Your task to perform on an android device: install app "Flipkart Online Shopping App" Image 0: 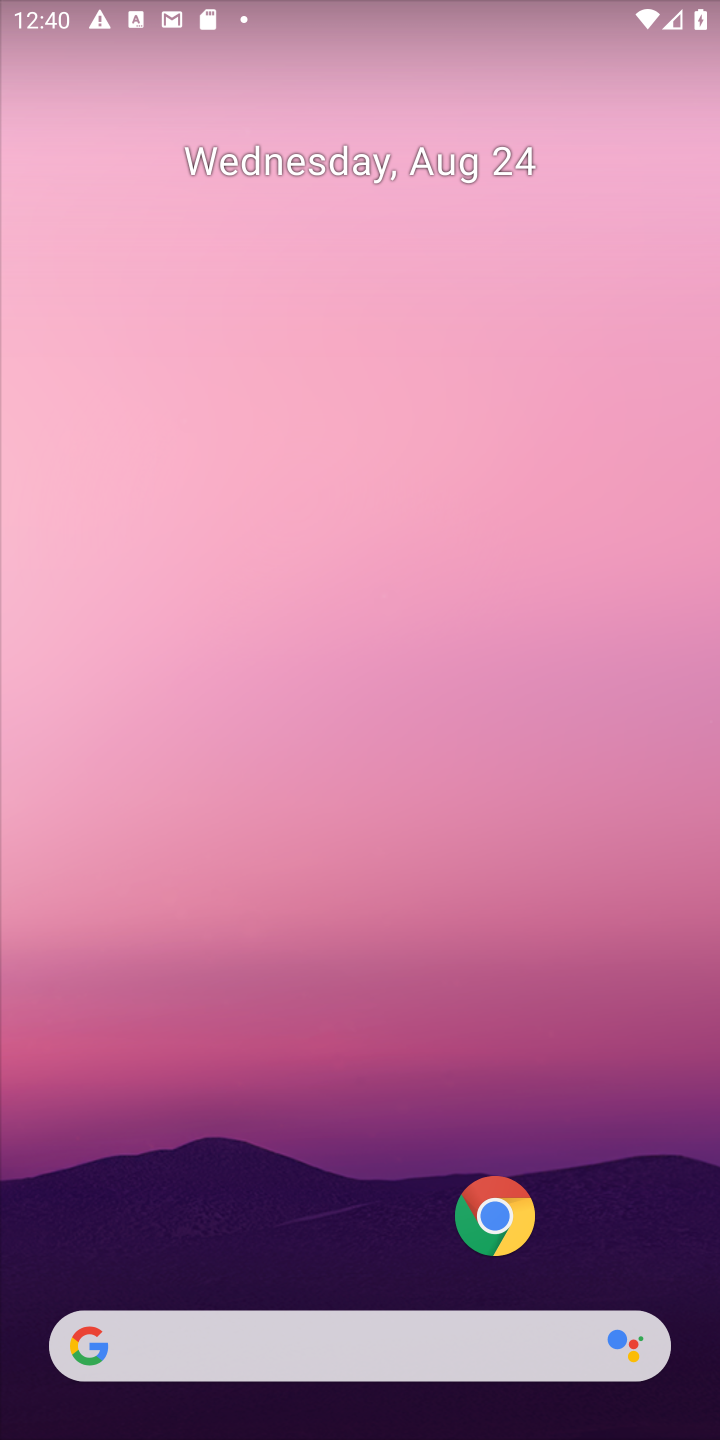
Step 0: drag from (278, 1363) to (559, 62)
Your task to perform on an android device: install app "Flipkart Online Shopping App" Image 1: 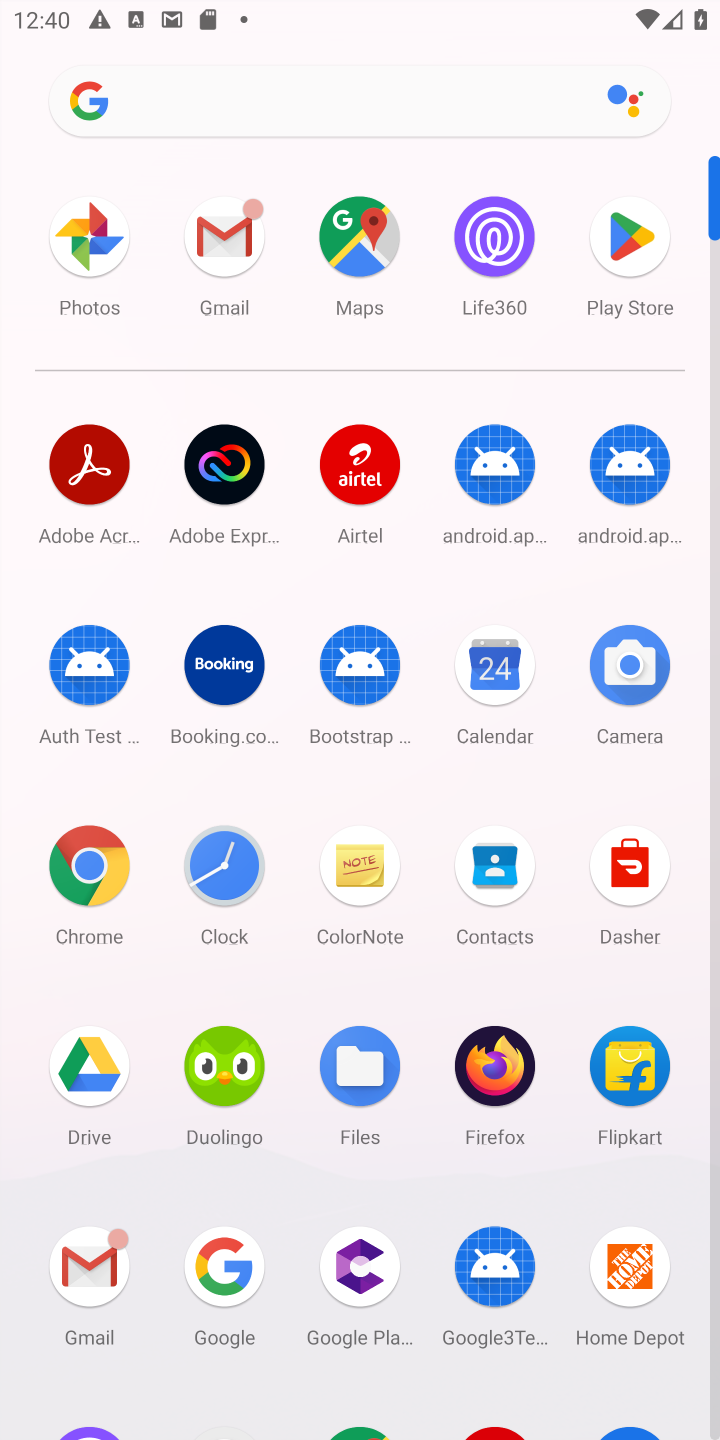
Step 1: click (625, 236)
Your task to perform on an android device: install app "Flipkart Online Shopping App" Image 2: 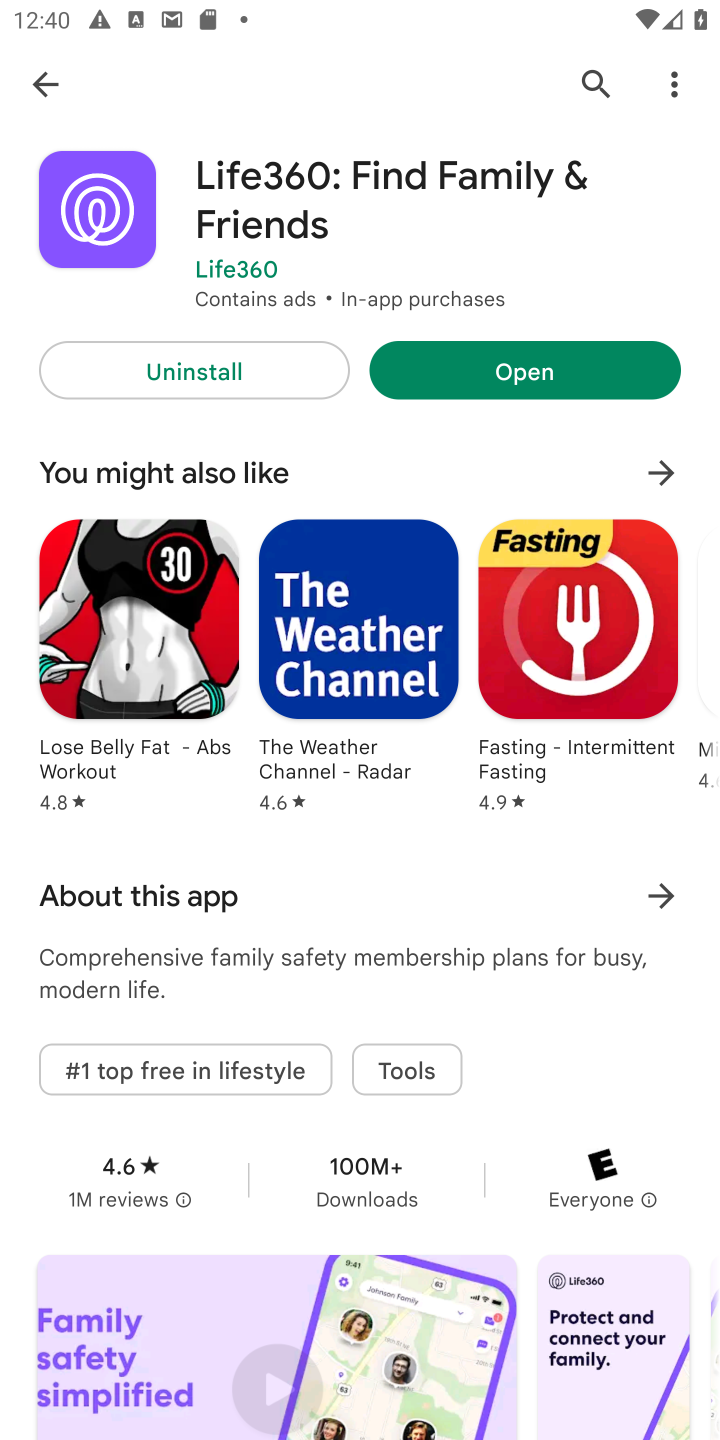
Step 2: press back button
Your task to perform on an android device: install app "Flipkart Online Shopping App" Image 3: 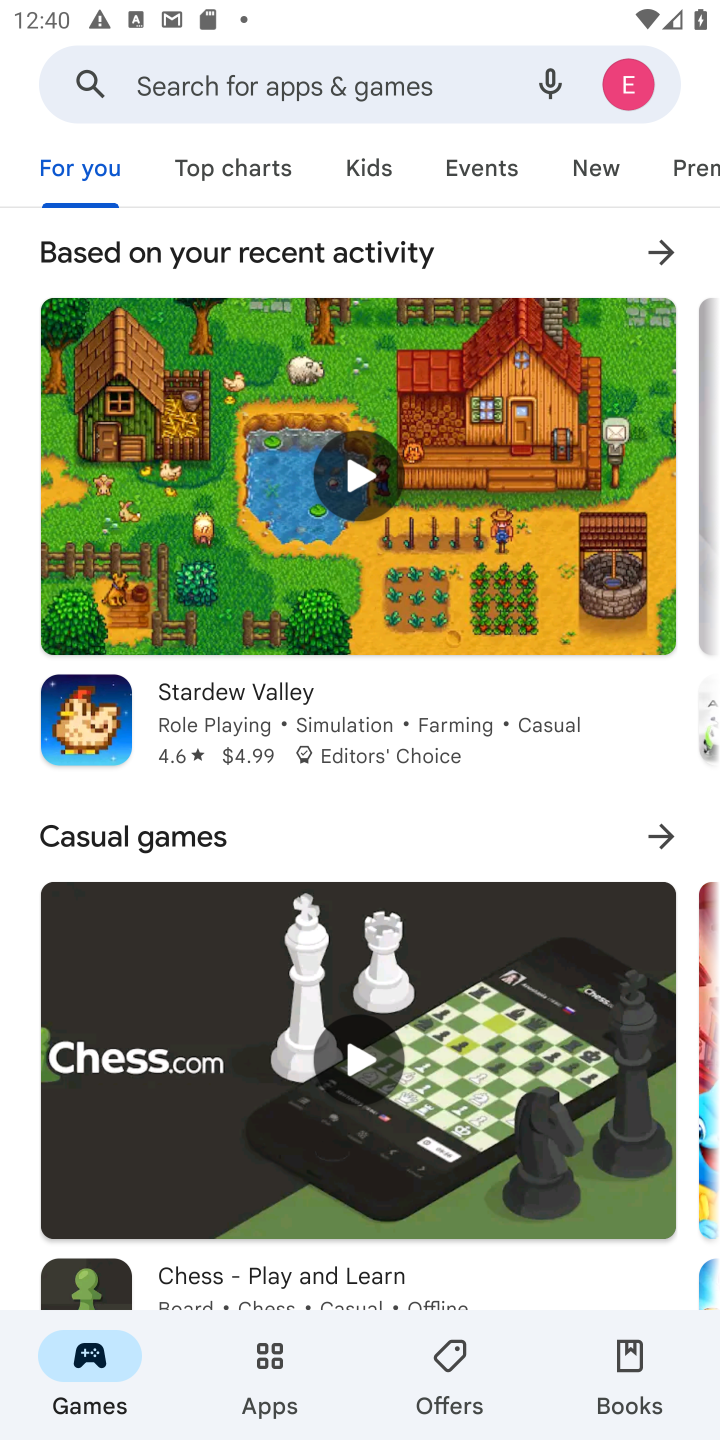
Step 3: click (401, 85)
Your task to perform on an android device: install app "Flipkart Online Shopping App" Image 4: 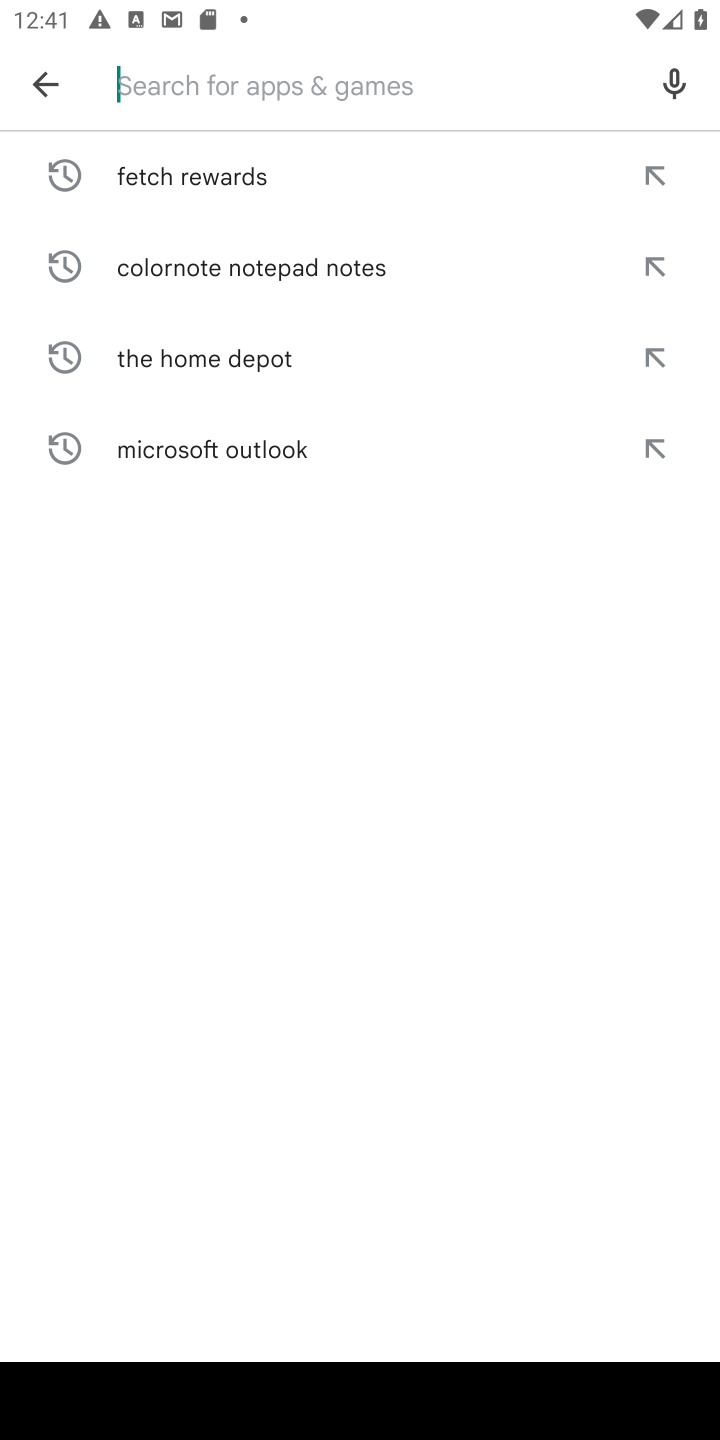
Step 4: type "Flipkart Online Shopping App"
Your task to perform on an android device: install app "Flipkart Online Shopping App" Image 5: 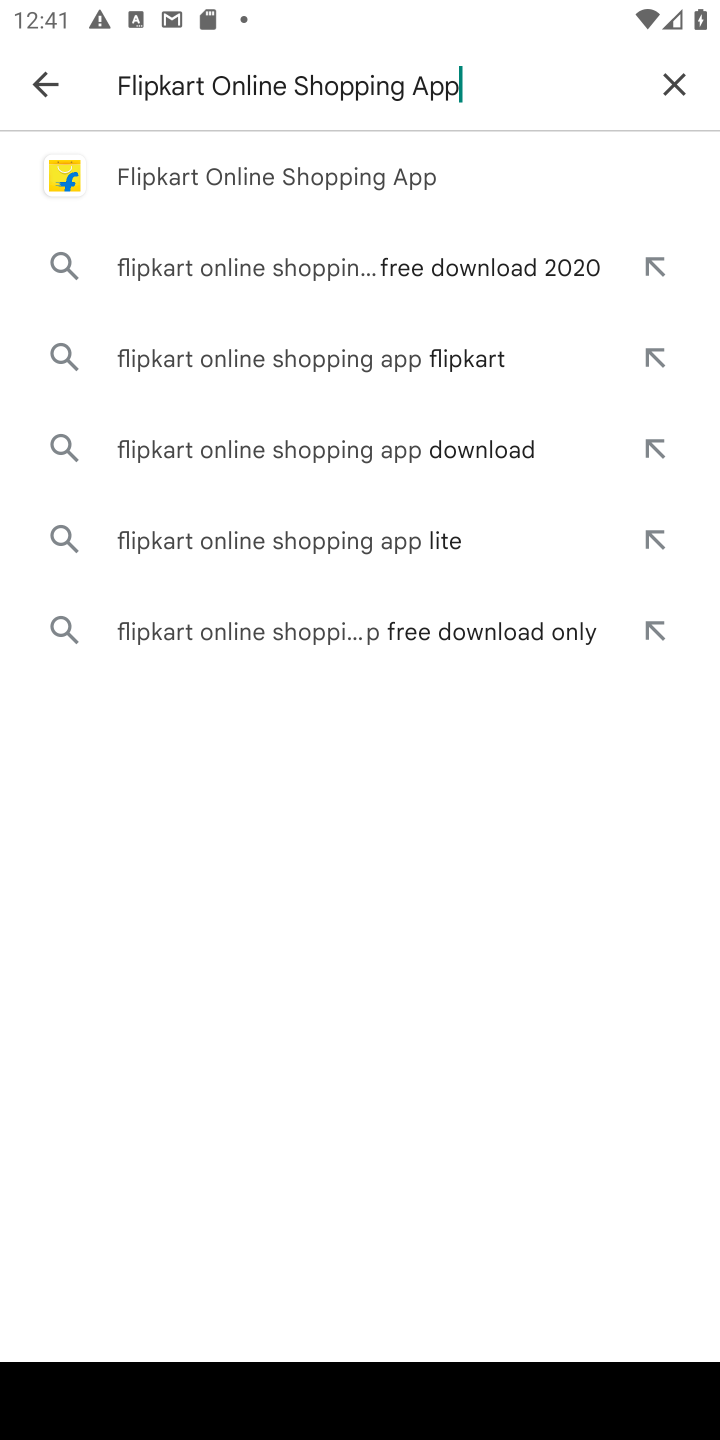
Step 5: click (218, 176)
Your task to perform on an android device: install app "Flipkart Online Shopping App" Image 6: 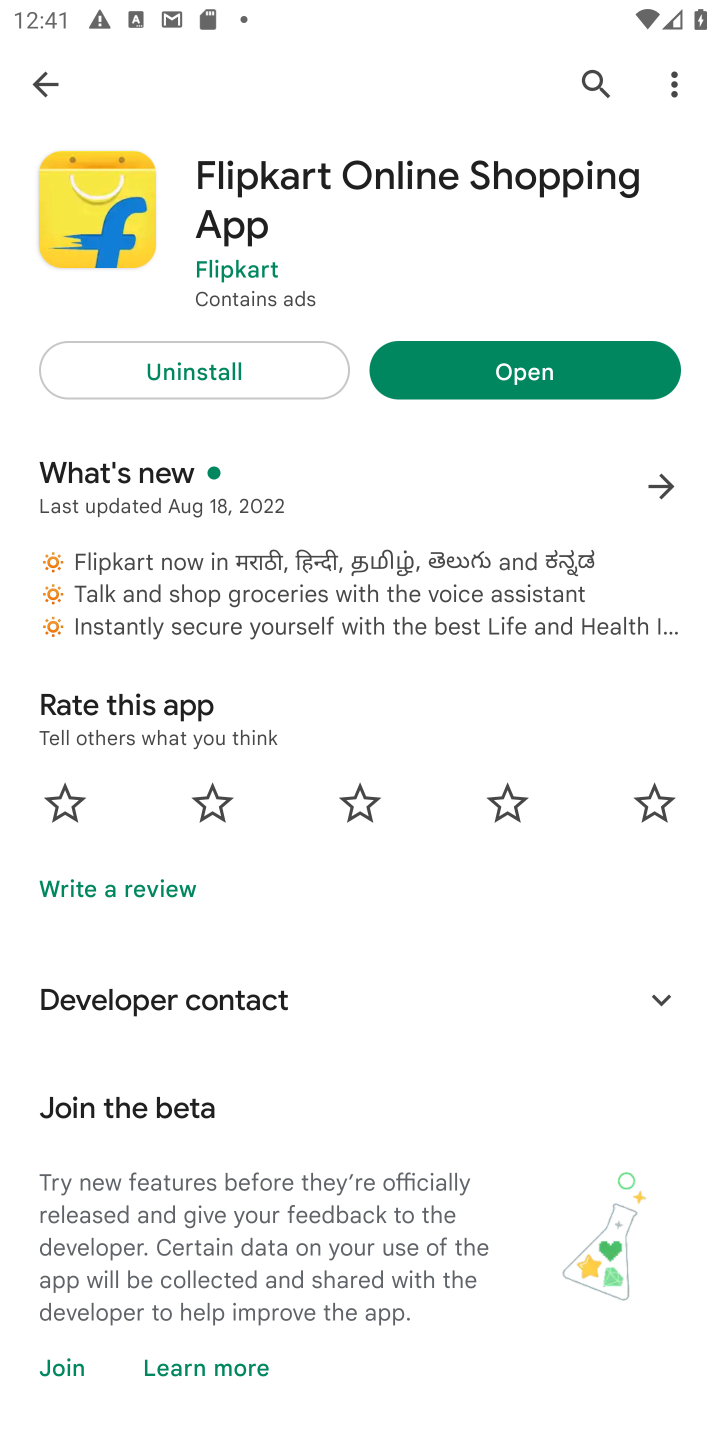
Step 6: task complete